Your task to perform on an android device: turn notification dots on Image 0: 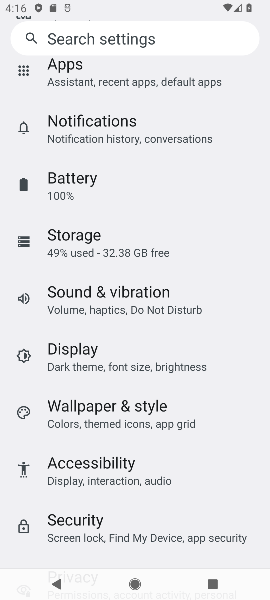
Step 0: click (149, 123)
Your task to perform on an android device: turn notification dots on Image 1: 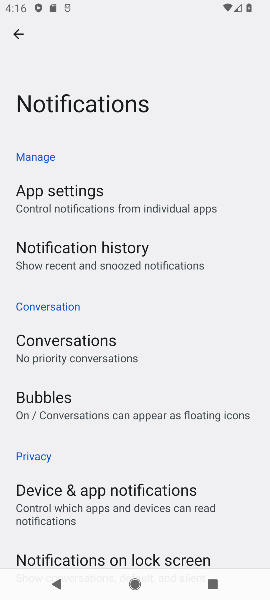
Step 1: task complete